Your task to perform on an android device: open the mobile data screen to see how much data has been used Image 0: 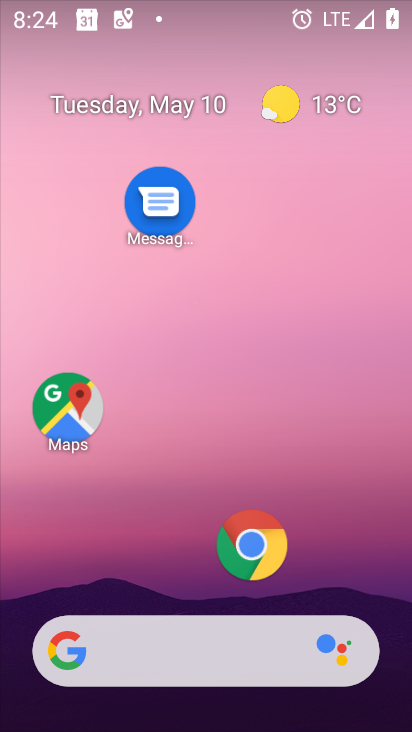
Step 0: press home button
Your task to perform on an android device: open the mobile data screen to see how much data has been used Image 1: 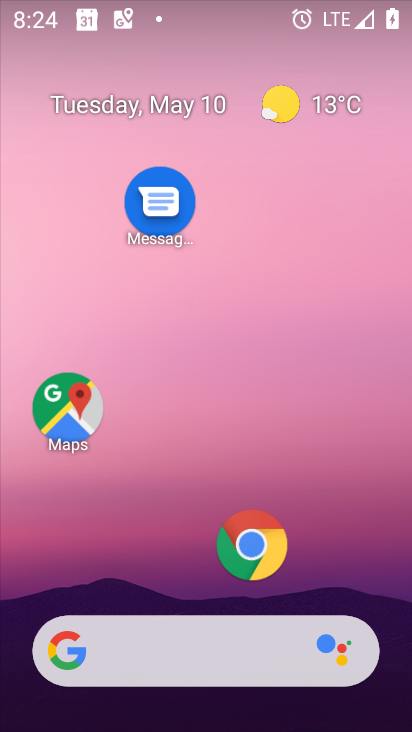
Step 1: drag from (202, 578) to (223, 261)
Your task to perform on an android device: open the mobile data screen to see how much data has been used Image 2: 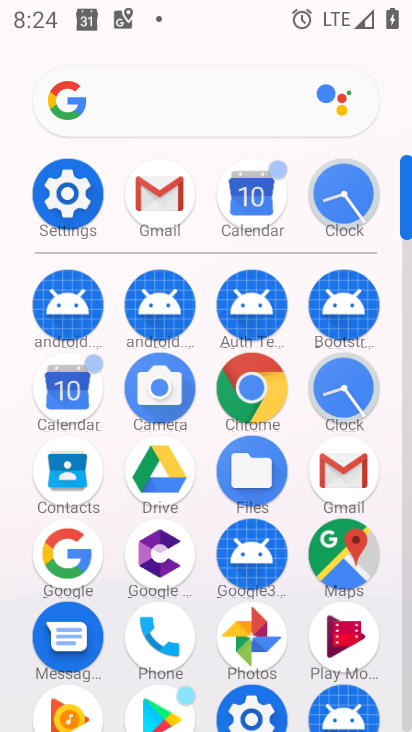
Step 2: click (59, 182)
Your task to perform on an android device: open the mobile data screen to see how much data has been used Image 3: 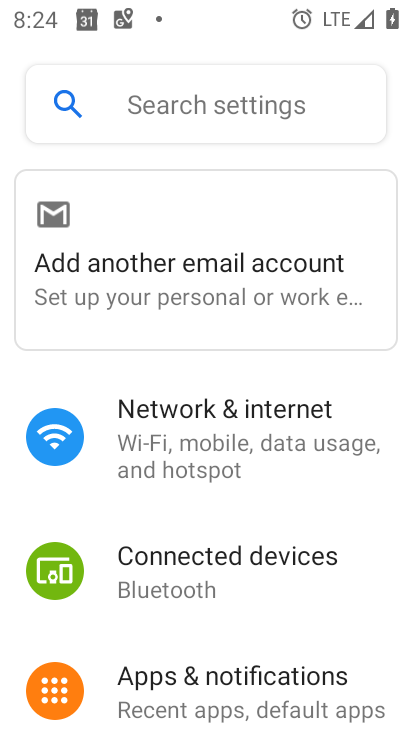
Step 3: drag from (225, 651) to (202, 392)
Your task to perform on an android device: open the mobile data screen to see how much data has been used Image 4: 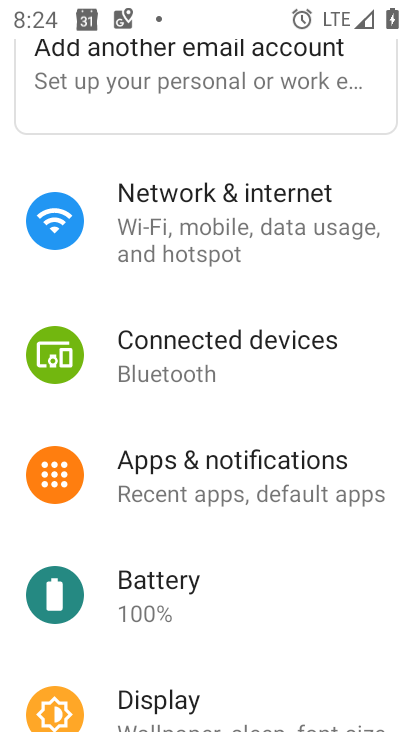
Step 4: click (181, 214)
Your task to perform on an android device: open the mobile data screen to see how much data has been used Image 5: 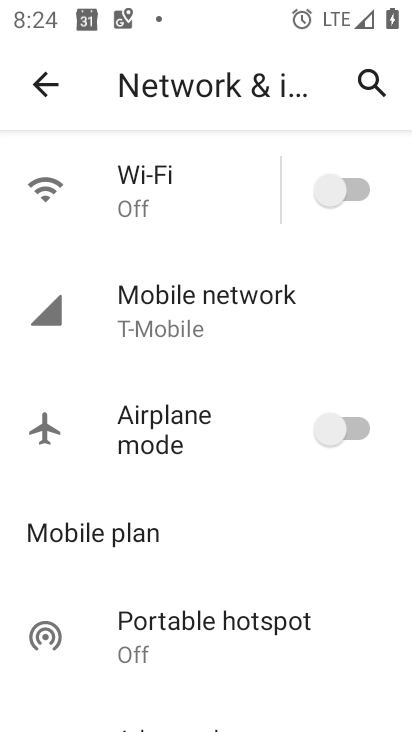
Step 5: click (201, 300)
Your task to perform on an android device: open the mobile data screen to see how much data has been used Image 6: 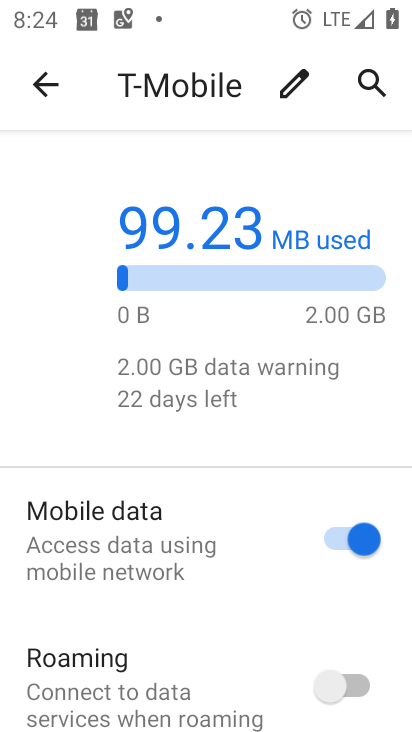
Step 6: drag from (228, 633) to (205, 318)
Your task to perform on an android device: open the mobile data screen to see how much data has been used Image 7: 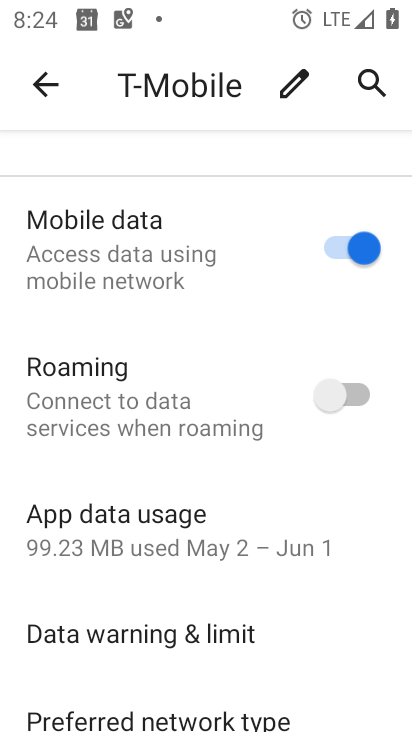
Step 7: click (227, 517)
Your task to perform on an android device: open the mobile data screen to see how much data has been used Image 8: 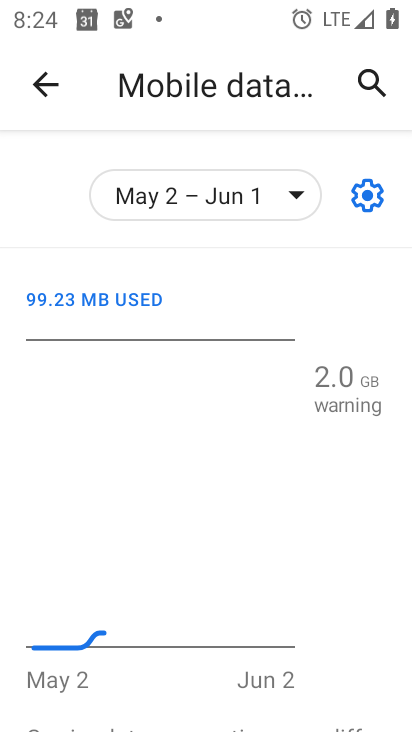
Step 8: task complete